Your task to perform on an android device: set the timer Image 0: 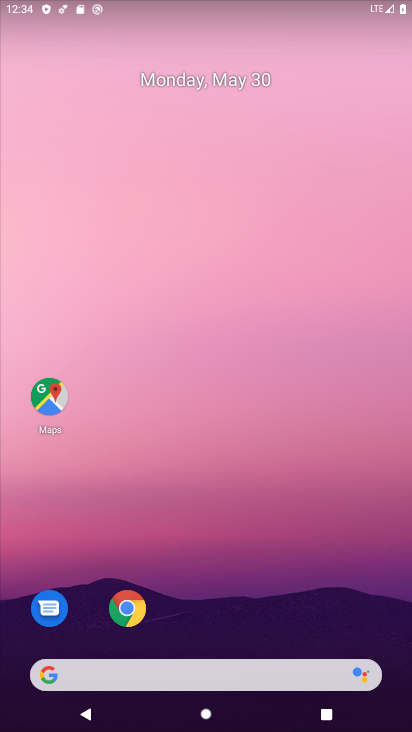
Step 0: drag from (213, 638) to (288, 28)
Your task to perform on an android device: set the timer Image 1: 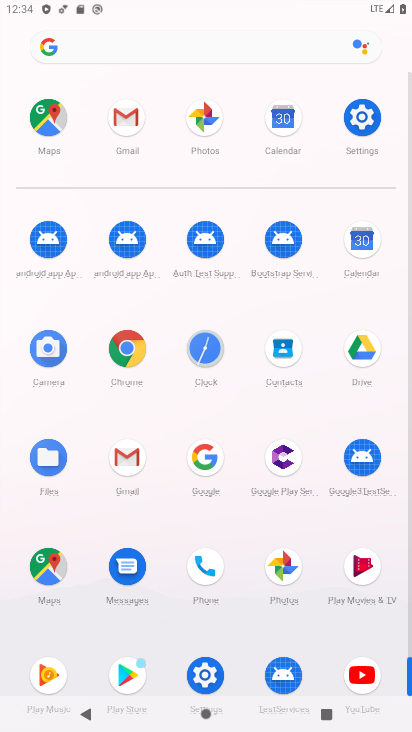
Step 1: click (204, 353)
Your task to perform on an android device: set the timer Image 2: 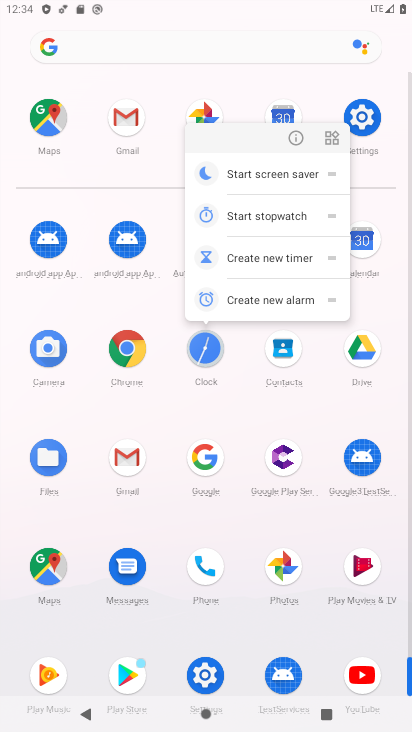
Step 2: click (204, 353)
Your task to perform on an android device: set the timer Image 3: 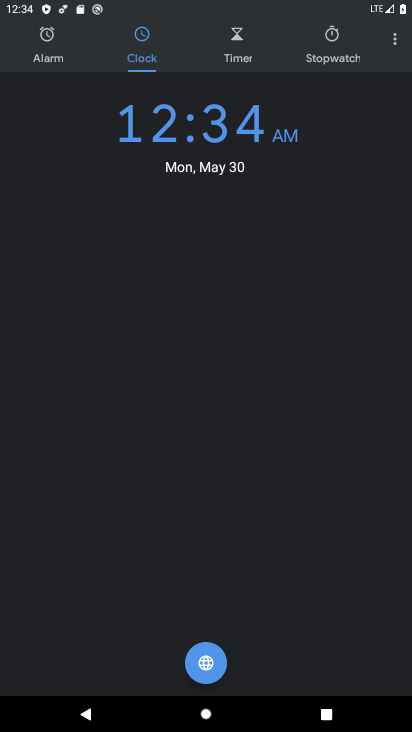
Step 3: click (229, 54)
Your task to perform on an android device: set the timer Image 4: 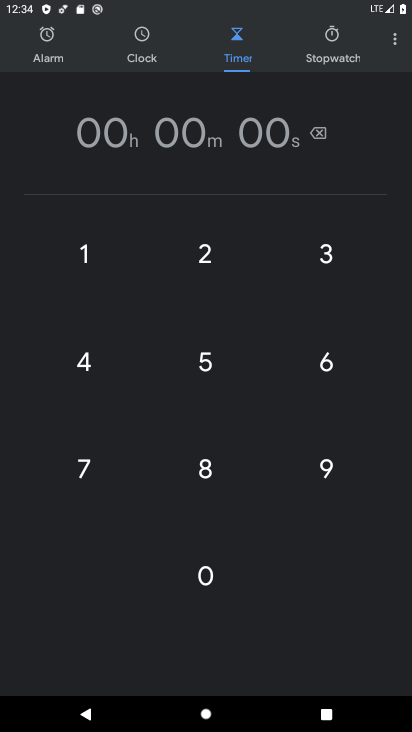
Step 4: click (200, 405)
Your task to perform on an android device: set the timer Image 5: 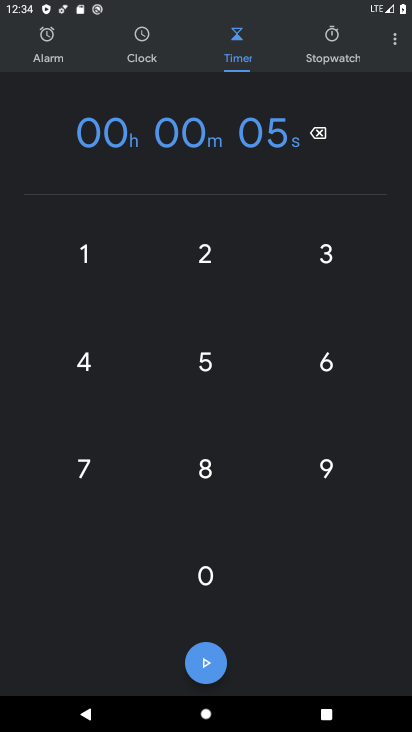
Step 5: click (78, 348)
Your task to perform on an android device: set the timer Image 6: 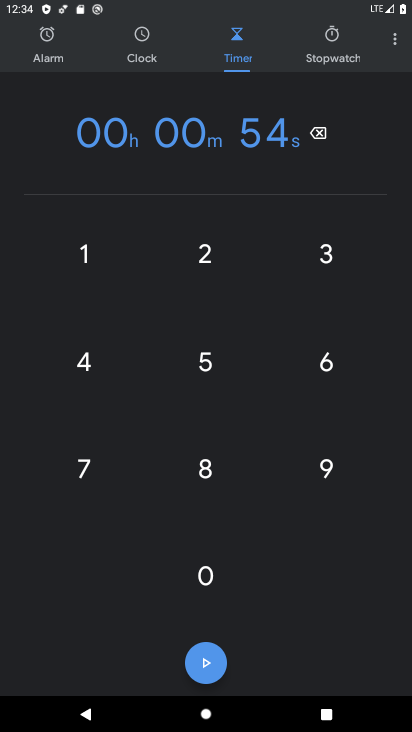
Step 6: click (57, 470)
Your task to perform on an android device: set the timer Image 7: 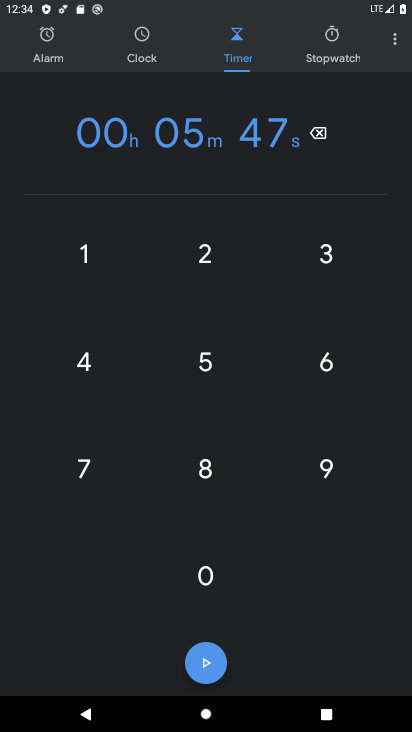
Step 7: click (219, 659)
Your task to perform on an android device: set the timer Image 8: 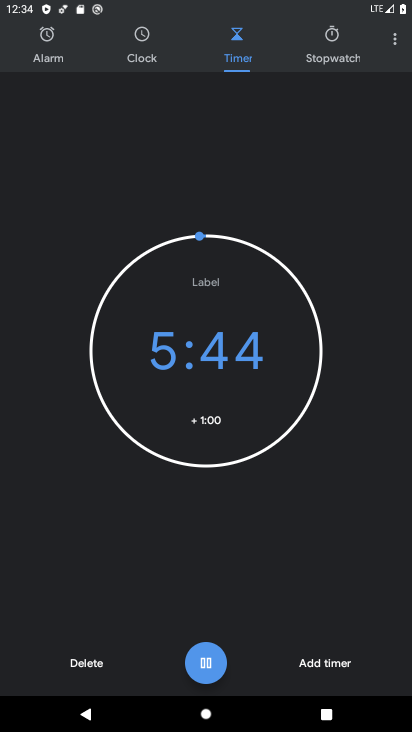
Step 8: task complete